Your task to perform on an android device: Go to notification settings Image 0: 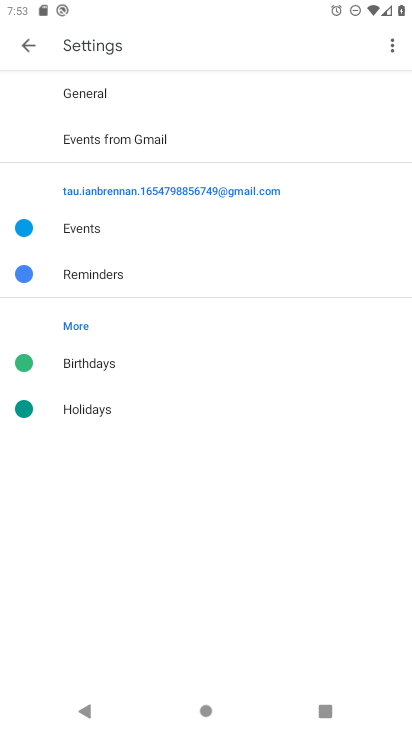
Step 0: press home button
Your task to perform on an android device: Go to notification settings Image 1: 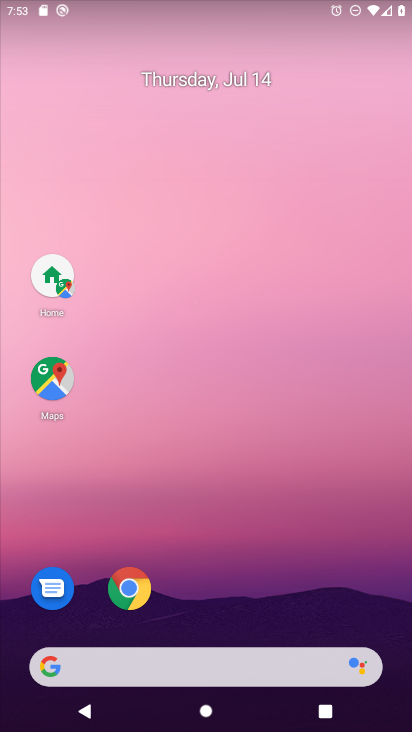
Step 1: drag from (126, 299) to (155, 120)
Your task to perform on an android device: Go to notification settings Image 2: 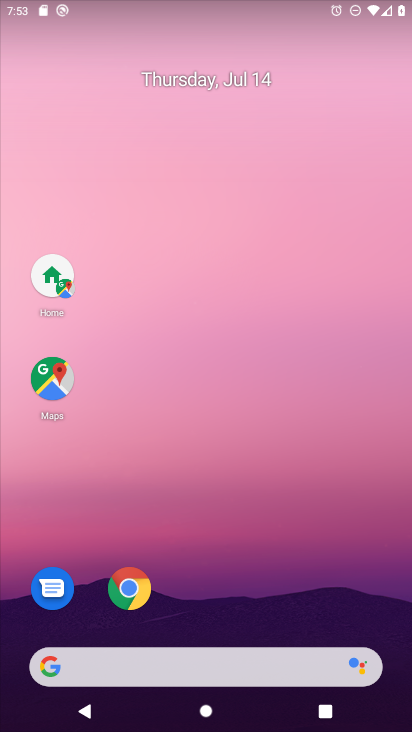
Step 2: drag from (54, 711) to (221, 25)
Your task to perform on an android device: Go to notification settings Image 3: 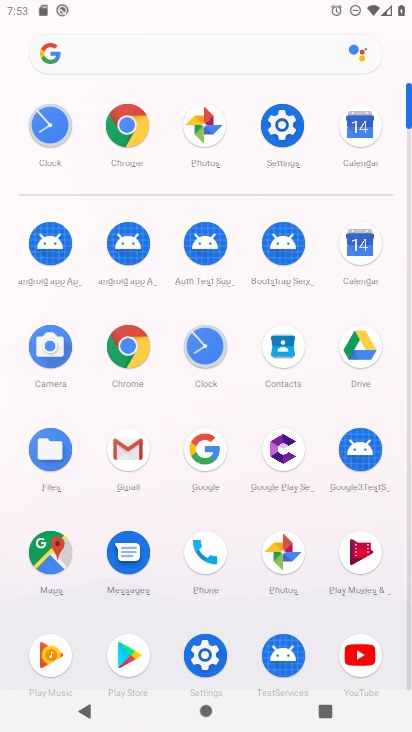
Step 3: click (198, 666)
Your task to perform on an android device: Go to notification settings Image 4: 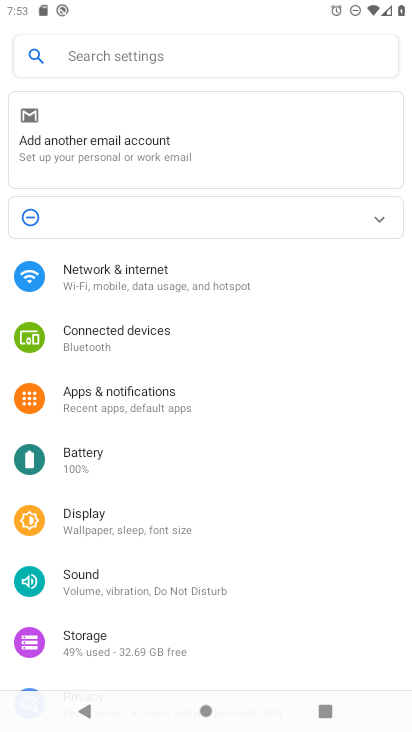
Step 4: click (108, 397)
Your task to perform on an android device: Go to notification settings Image 5: 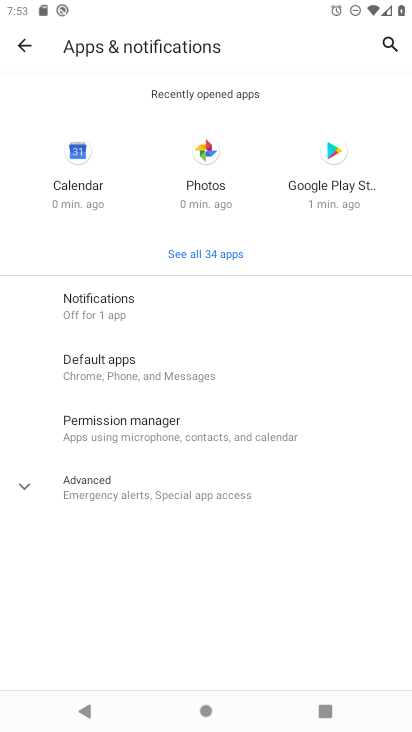
Step 5: task complete